Your task to perform on an android device: Go to display settings Image 0: 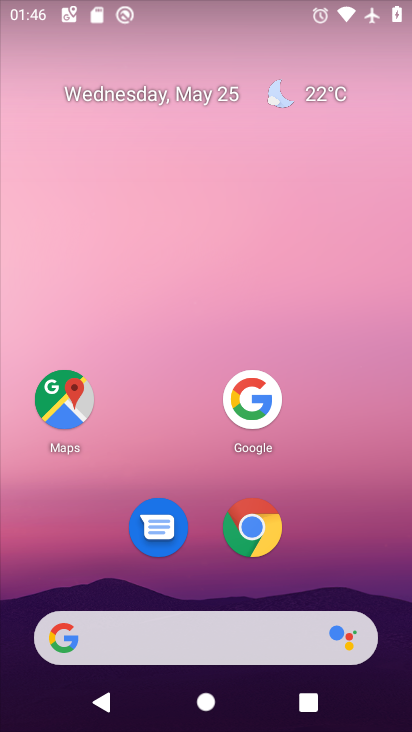
Step 0: drag from (221, 656) to (362, 152)
Your task to perform on an android device: Go to display settings Image 1: 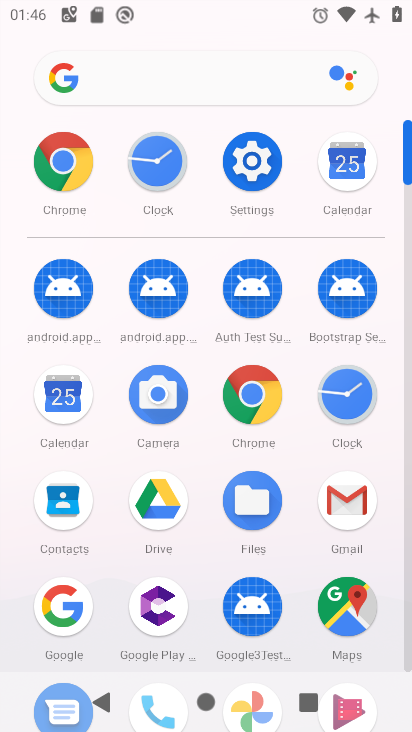
Step 1: click (256, 168)
Your task to perform on an android device: Go to display settings Image 2: 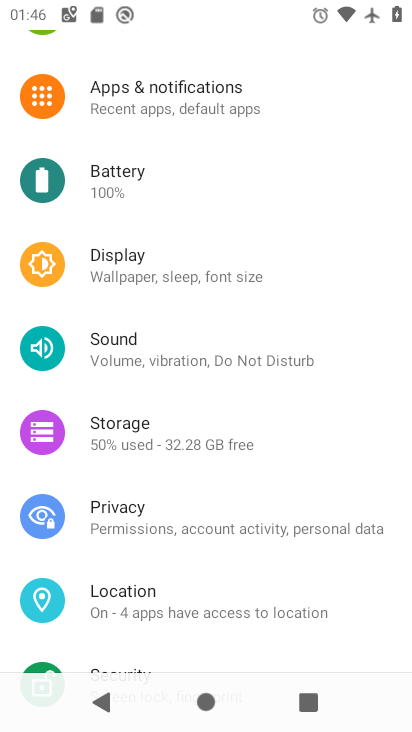
Step 2: click (148, 268)
Your task to perform on an android device: Go to display settings Image 3: 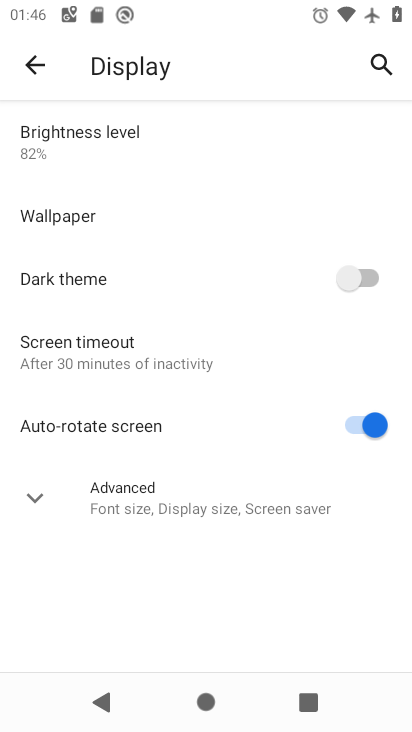
Step 3: task complete